Your task to perform on an android device: open app "Spotify: Music and Podcasts" Image 0: 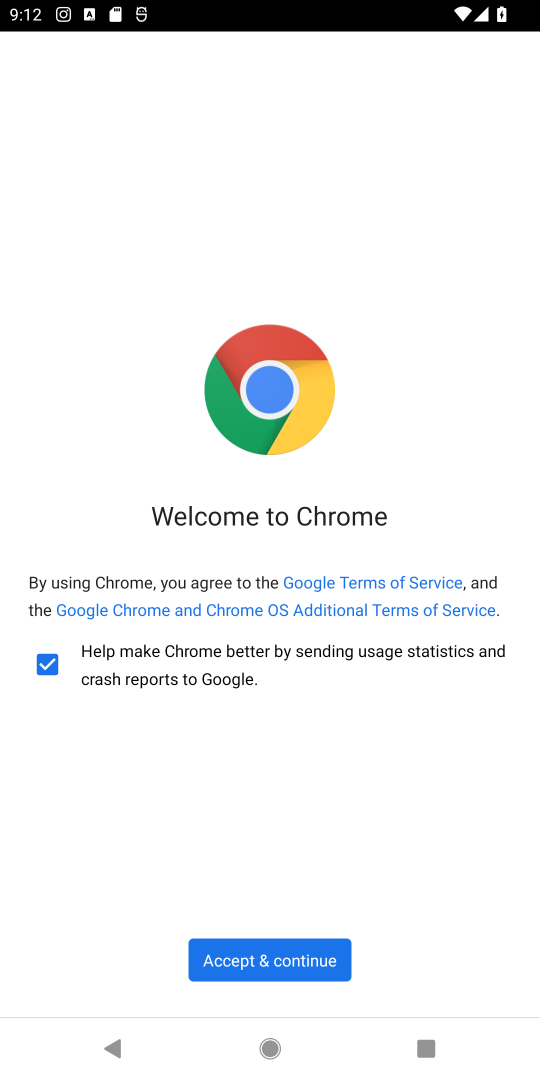
Step 0: press home button
Your task to perform on an android device: open app "Spotify: Music and Podcasts" Image 1: 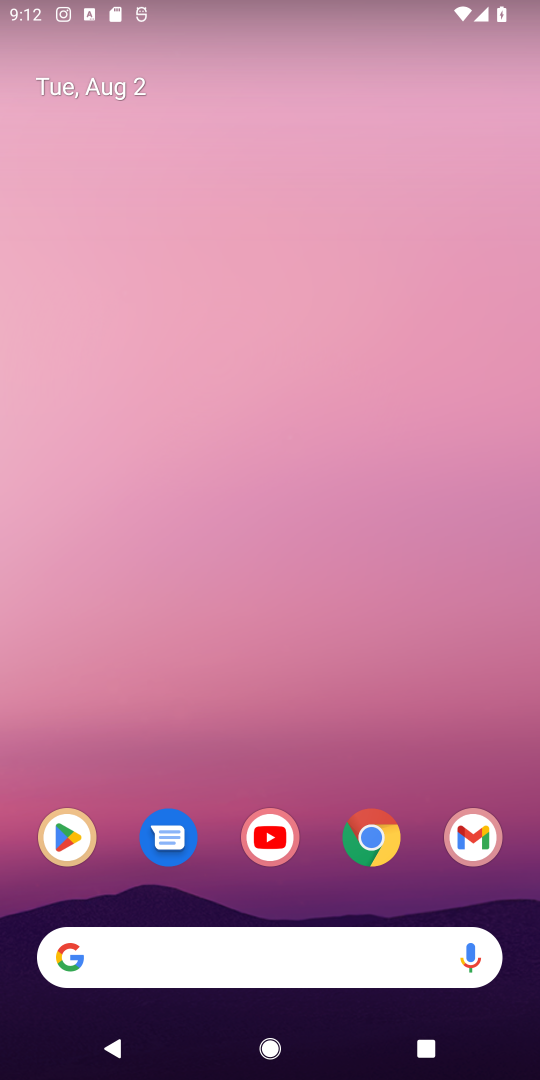
Step 1: click (63, 847)
Your task to perform on an android device: open app "Spotify: Music and Podcasts" Image 2: 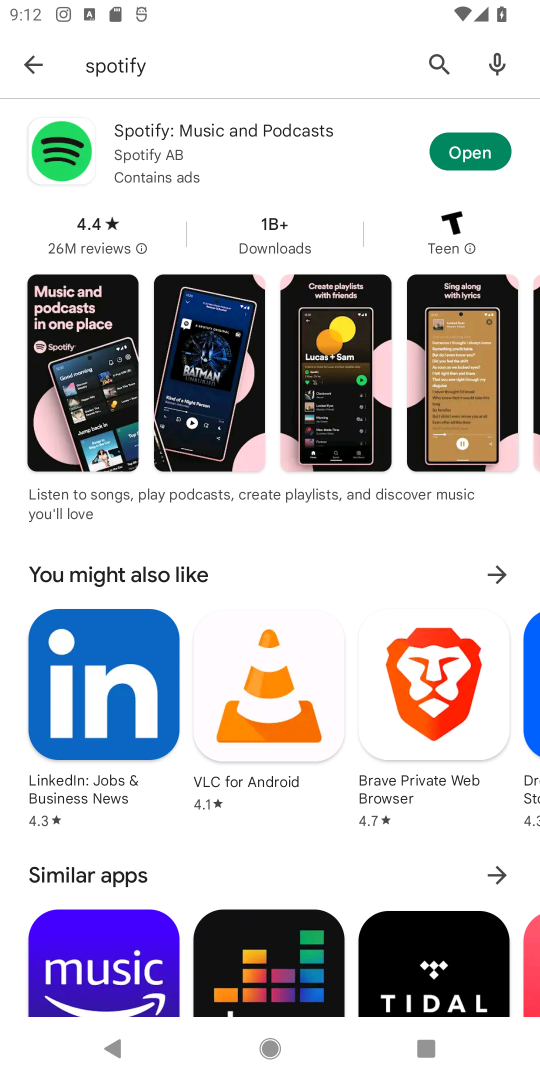
Step 2: click (441, 61)
Your task to perform on an android device: open app "Spotify: Music and Podcasts" Image 3: 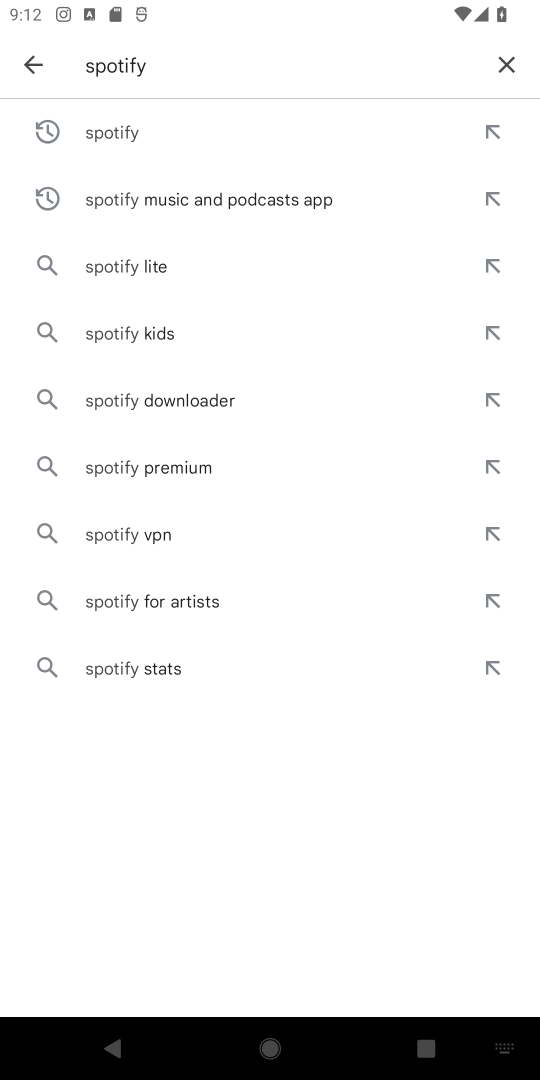
Step 3: click (492, 59)
Your task to perform on an android device: open app "Spotify: Music and Podcasts" Image 4: 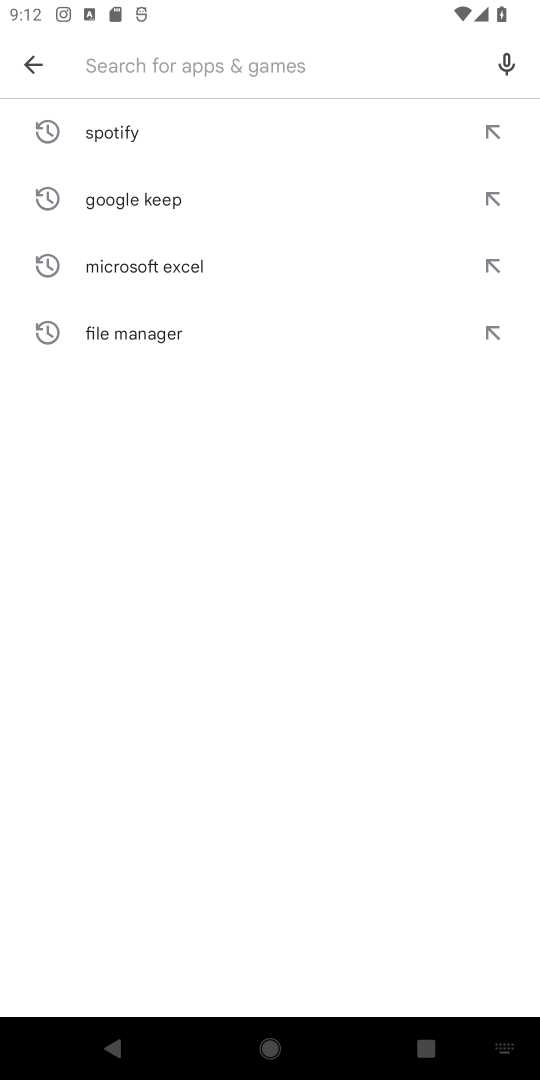
Step 4: type "Spotify: Music and Podcasts"
Your task to perform on an android device: open app "Spotify: Music and Podcasts" Image 5: 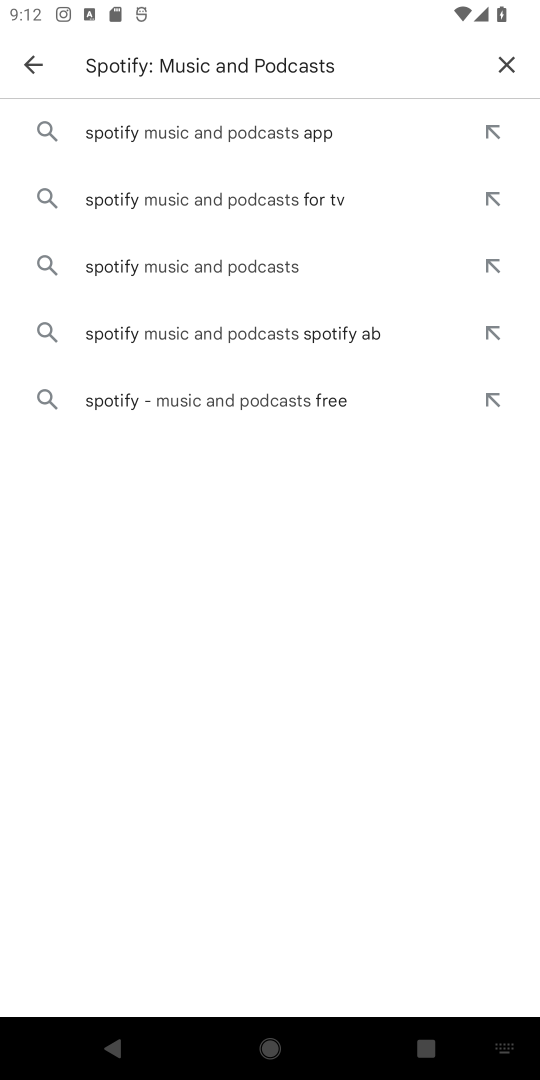
Step 5: click (184, 122)
Your task to perform on an android device: open app "Spotify: Music and Podcasts" Image 6: 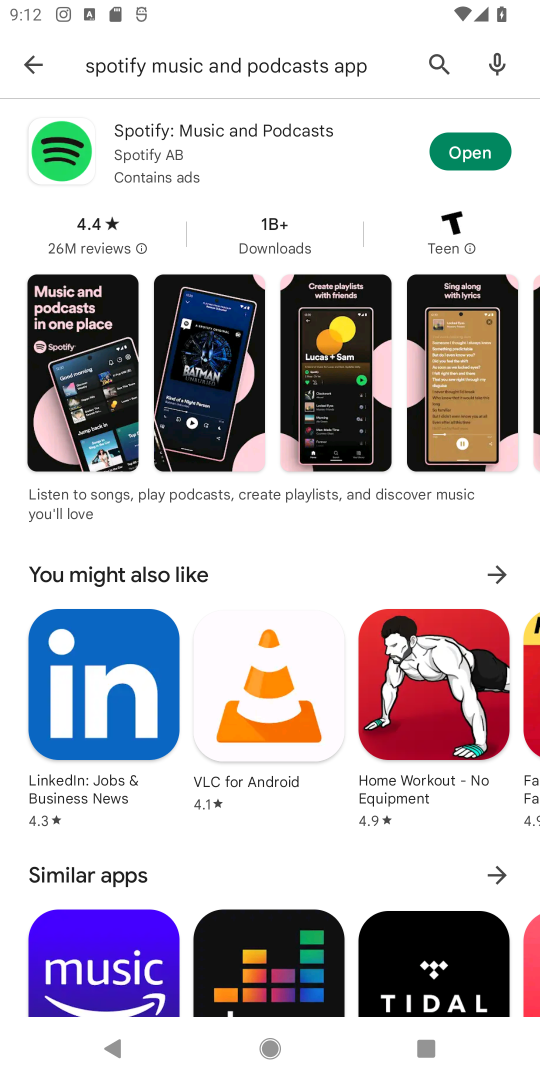
Step 6: click (484, 155)
Your task to perform on an android device: open app "Spotify: Music and Podcasts" Image 7: 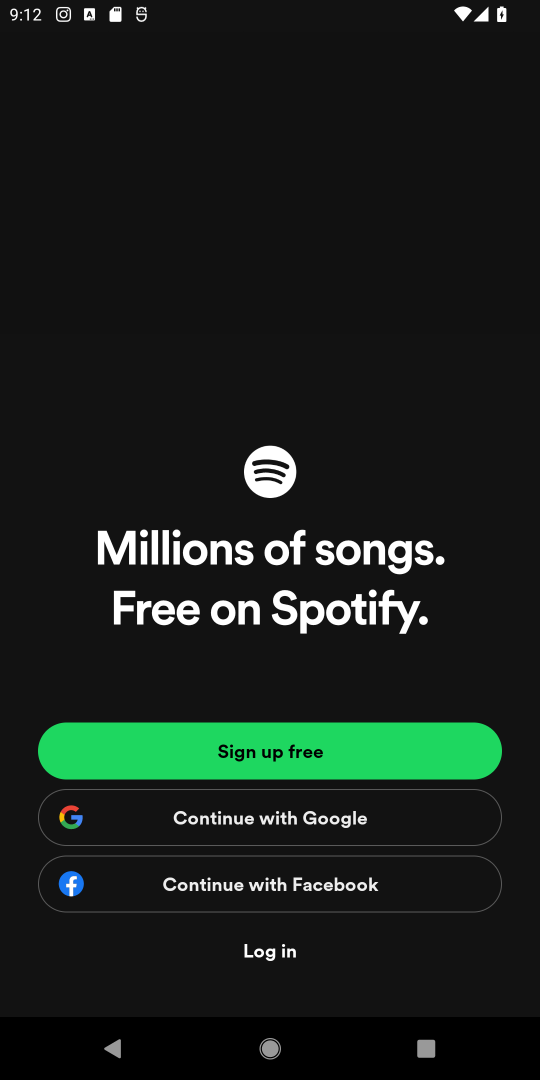
Step 7: task complete